Your task to perform on an android device: Go to settings Image 0: 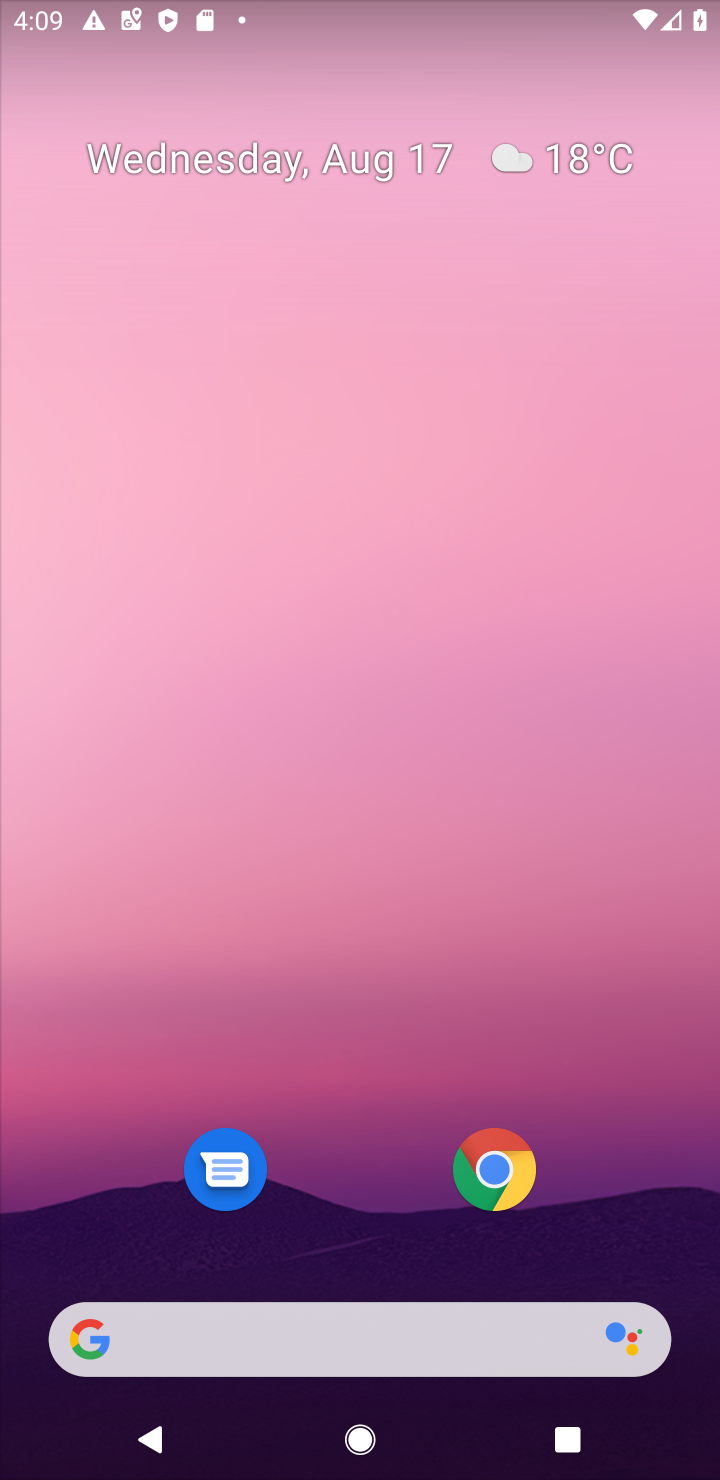
Step 0: drag from (392, 1186) to (354, 104)
Your task to perform on an android device: Go to settings Image 1: 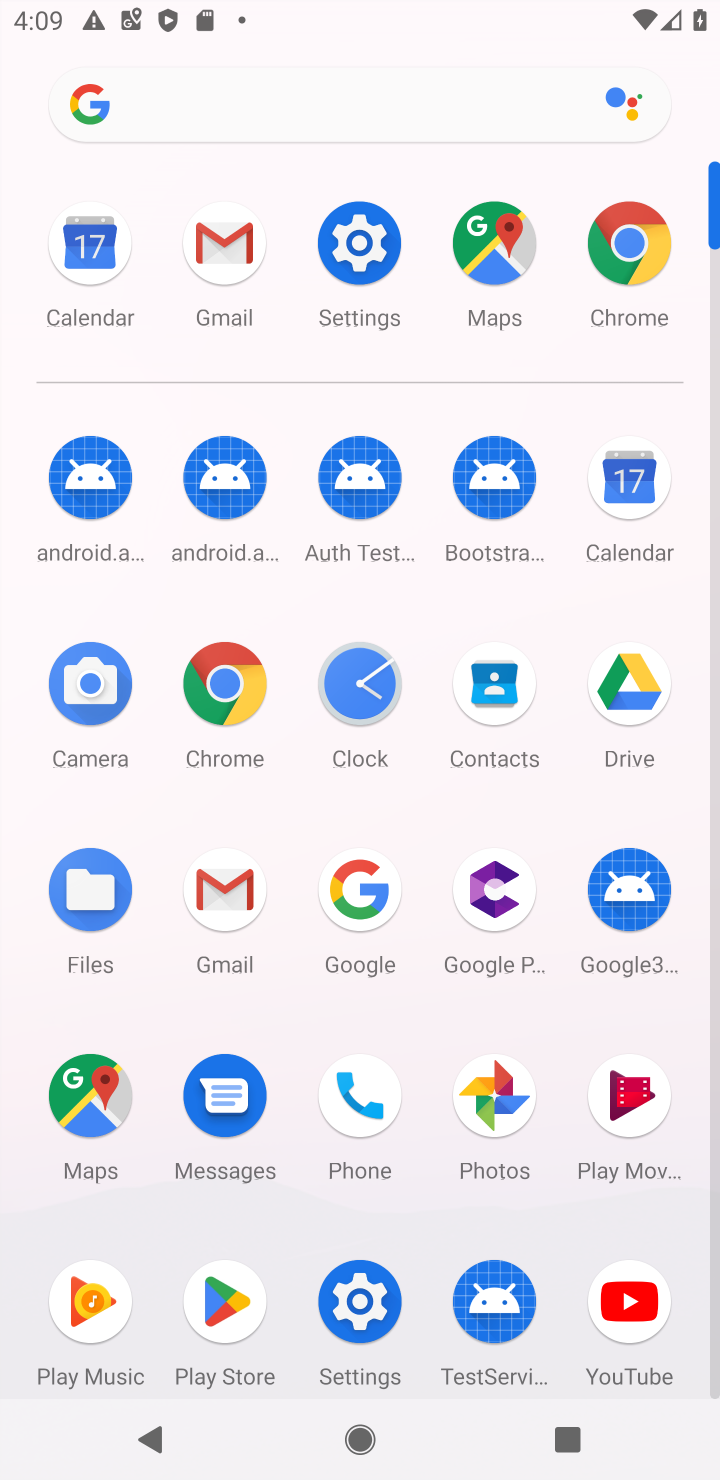
Step 1: click (356, 230)
Your task to perform on an android device: Go to settings Image 2: 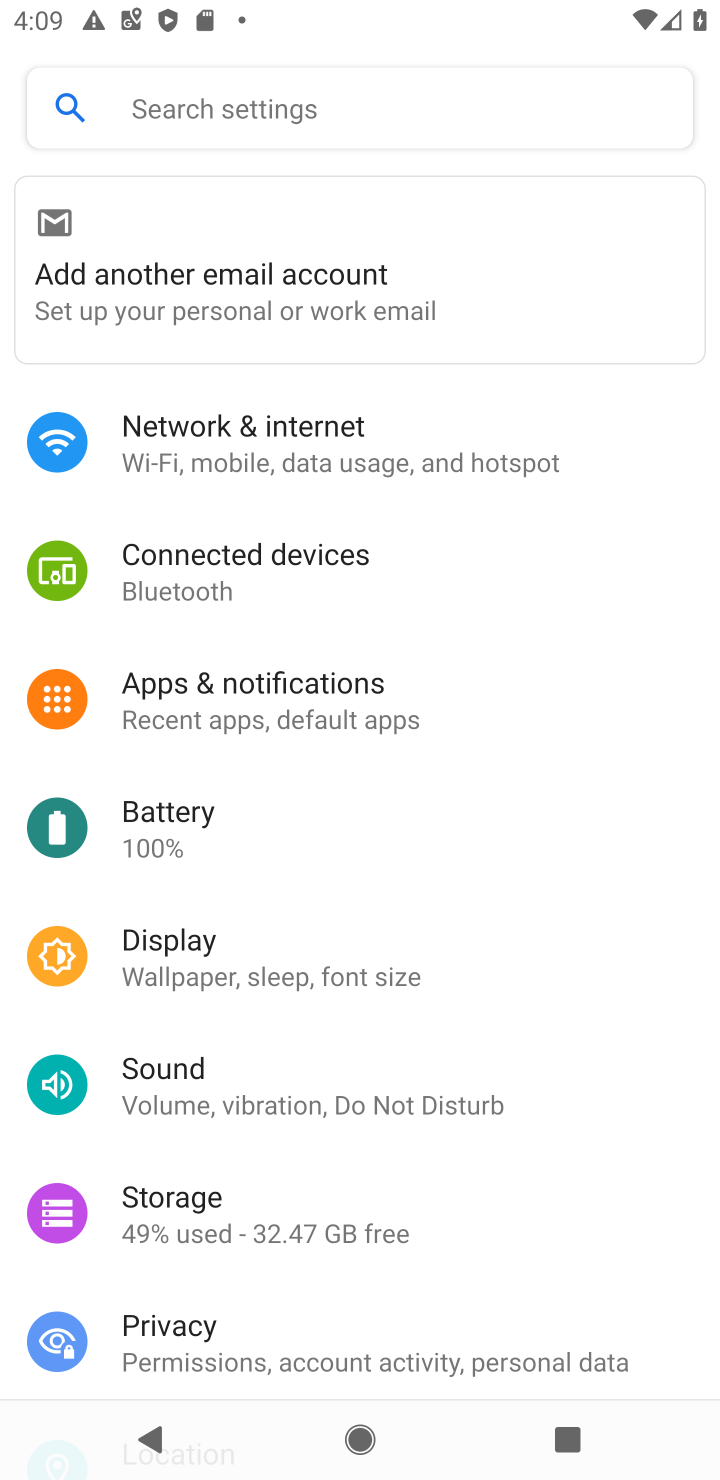
Step 2: task complete